Your task to perform on an android device: add a label to a message in the gmail app Image 0: 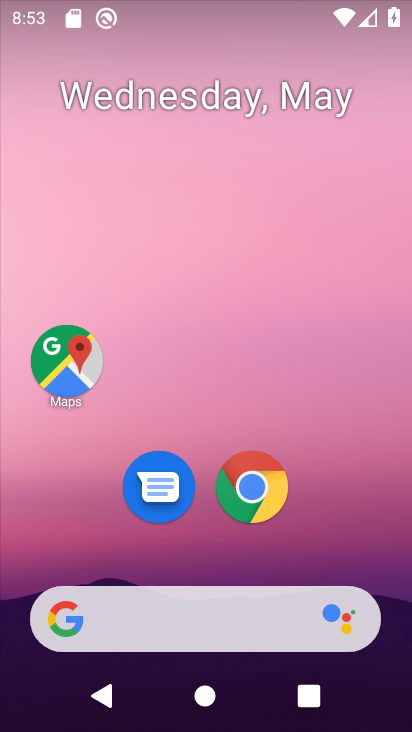
Step 0: drag from (96, 591) to (201, 92)
Your task to perform on an android device: add a label to a message in the gmail app Image 1: 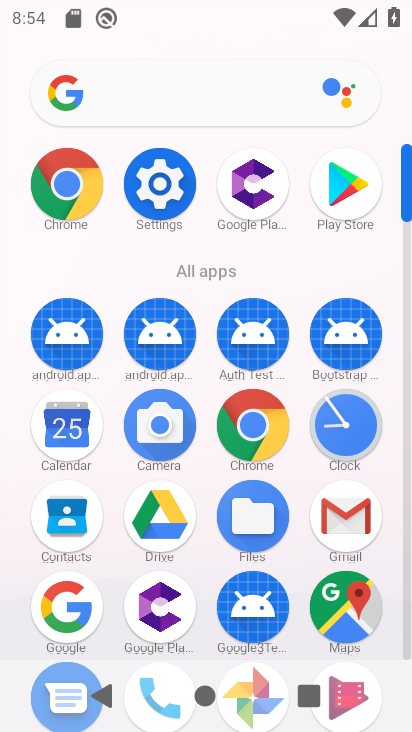
Step 1: click (331, 520)
Your task to perform on an android device: add a label to a message in the gmail app Image 2: 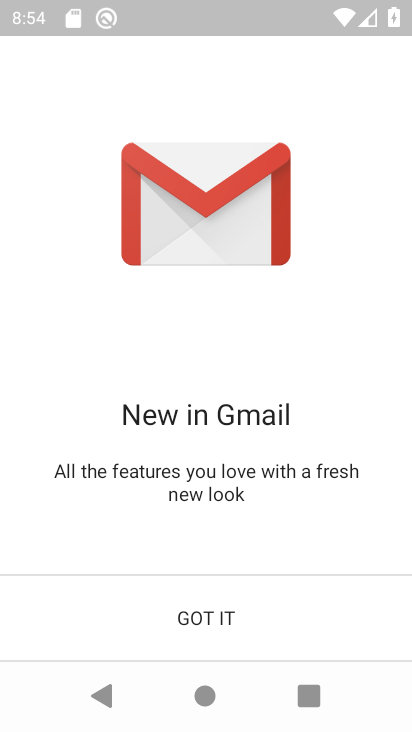
Step 2: click (240, 641)
Your task to perform on an android device: add a label to a message in the gmail app Image 3: 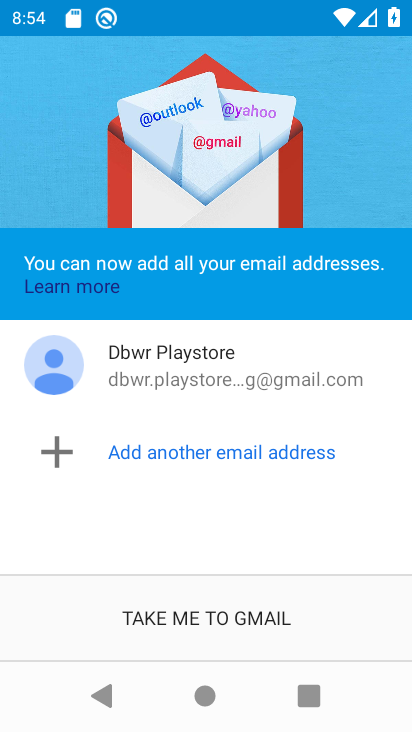
Step 3: click (240, 634)
Your task to perform on an android device: add a label to a message in the gmail app Image 4: 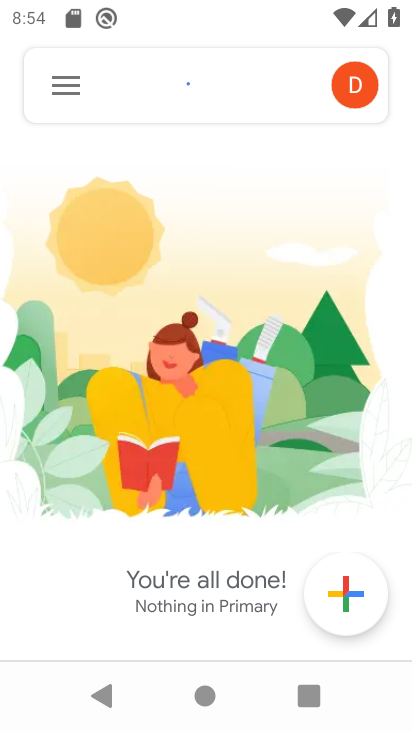
Step 4: click (62, 105)
Your task to perform on an android device: add a label to a message in the gmail app Image 5: 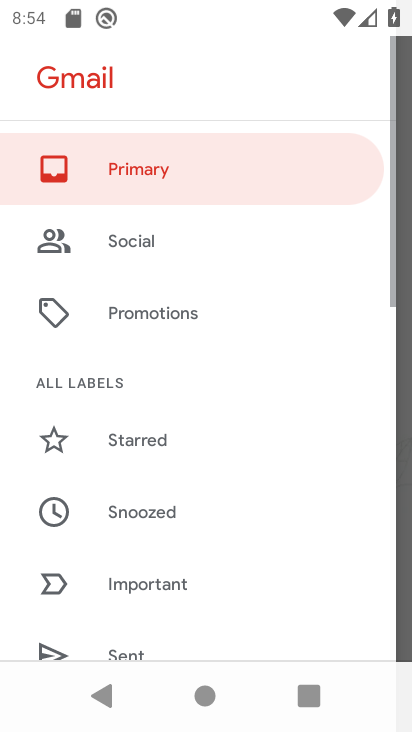
Step 5: drag from (122, 584) to (262, 14)
Your task to perform on an android device: add a label to a message in the gmail app Image 6: 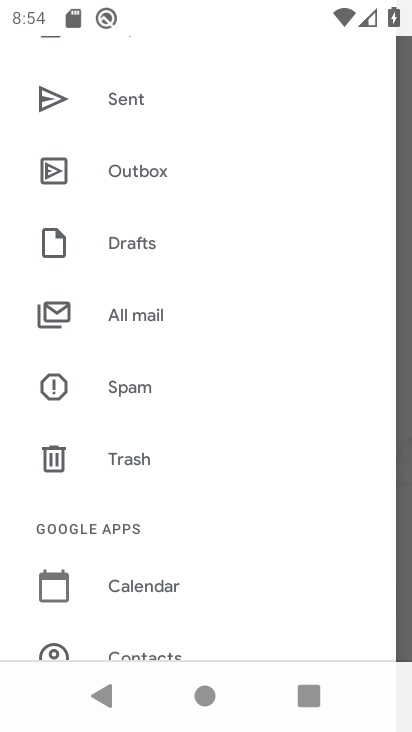
Step 6: click (168, 316)
Your task to perform on an android device: add a label to a message in the gmail app Image 7: 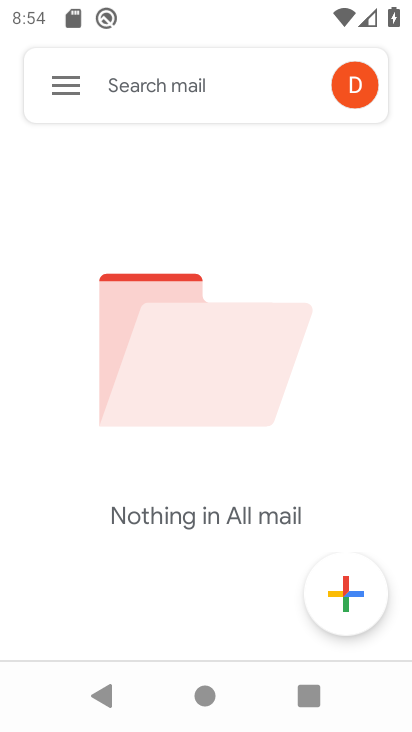
Step 7: task complete